Your task to perform on an android device: find which apps use the phone's location Image 0: 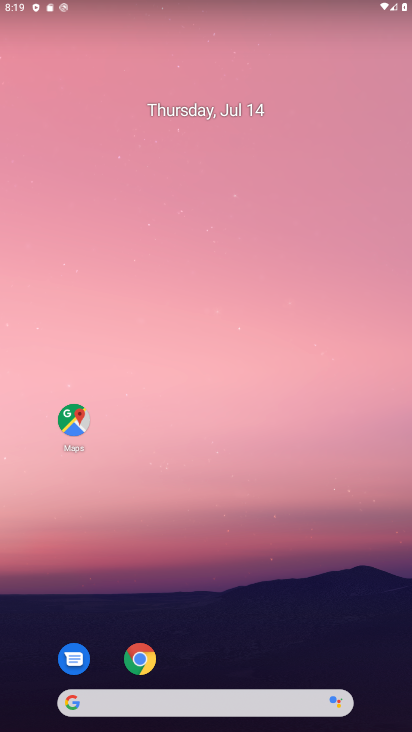
Step 0: drag from (172, 696) to (231, 345)
Your task to perform on an android device: find which apps use the phone's location Image 1: 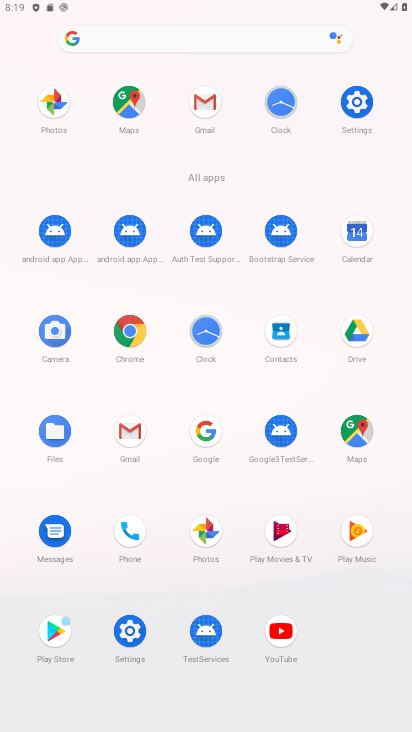
Step 1: click (356, 100)
Your task to perform on an android device: find which apps use the phone's location Image 2: 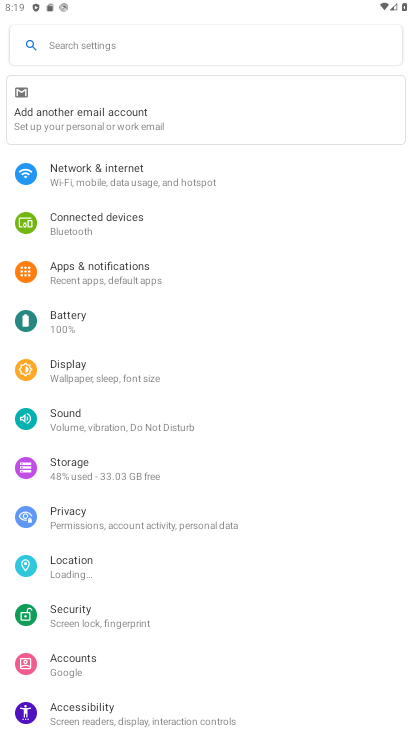
Step 2: click (71, 572)
Your task to perform on an android device: find which apps use the phone's location Image 3: 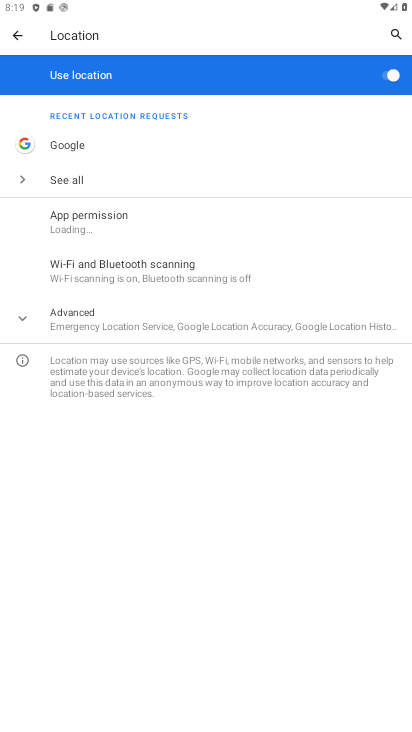
Step 3: click (77, 223)
Your task to perform on an android device: find which apps use the phone's location Image 4: 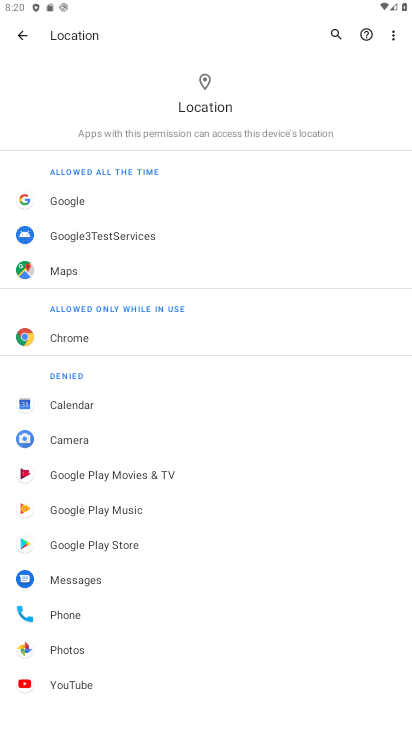
Step 4: task complete